Your task to perform on an android device: uninstall "DuckDuckGo Privacy Browser" Image 0: 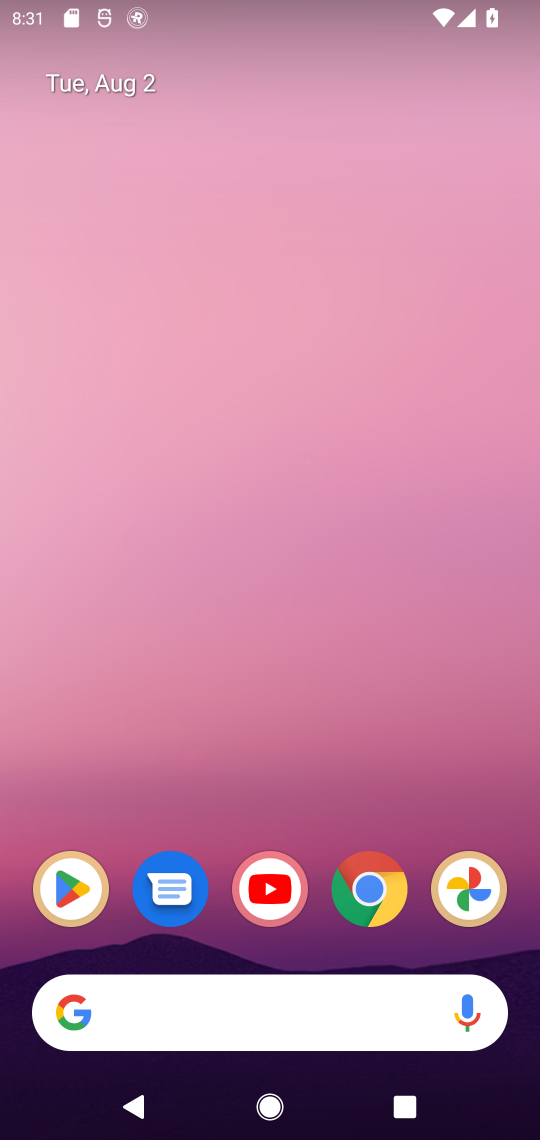
Step 0: press home button
Your task to perform on an android device: uninstall "DuckDuckGo Privacy Browser" Image 1: 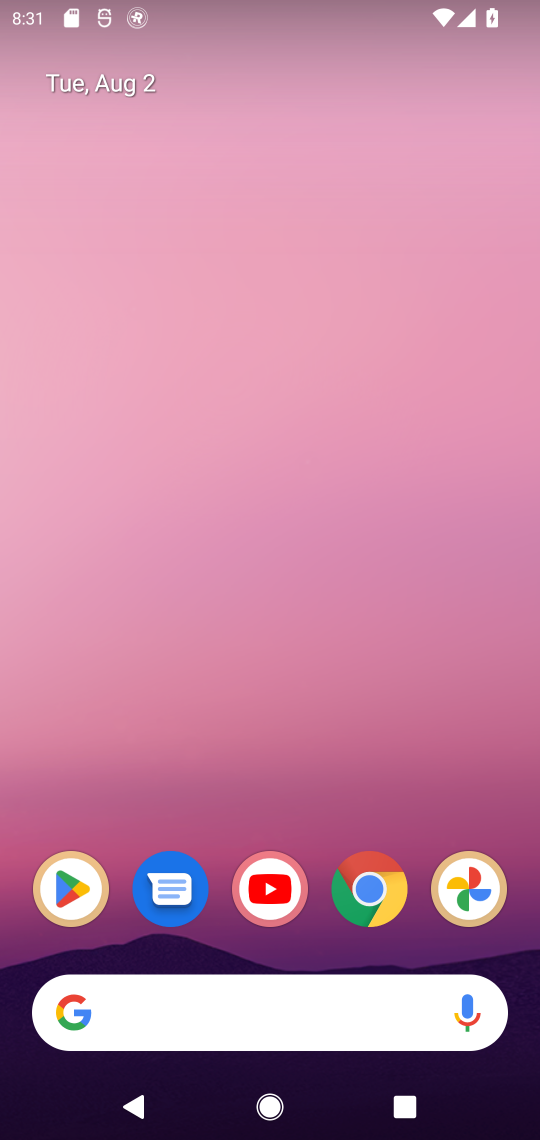
Step 1: click (64, 891)
Your task to perform on an android device: uninstall "DuckDuckGo Privacy Browser" Image 2: 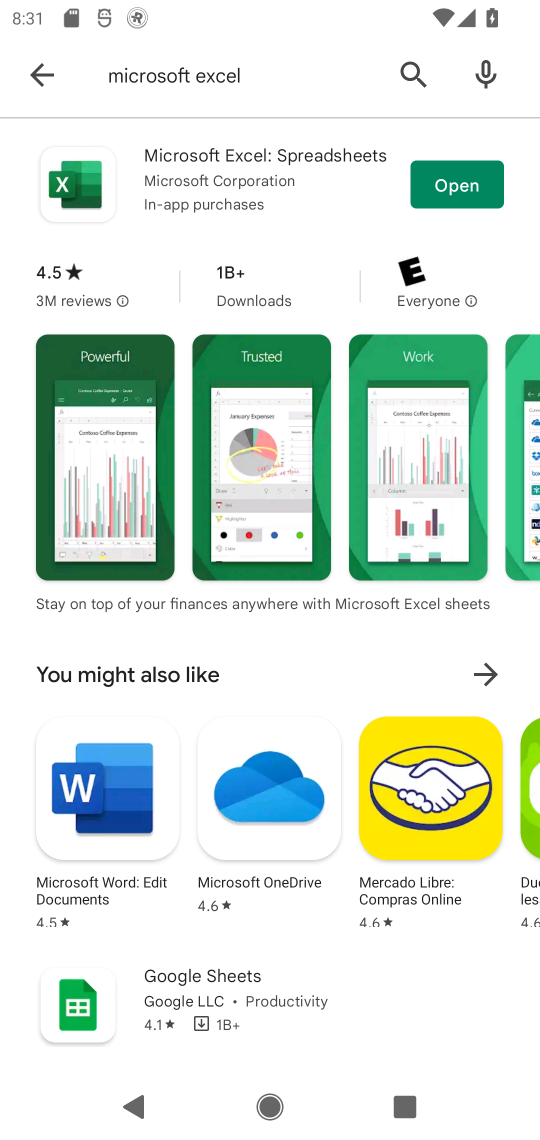
Step 2: click (405, 79)
Your task to perform on an android device: uninstall "DuckDuckGo Privacy Browser" Image 3: 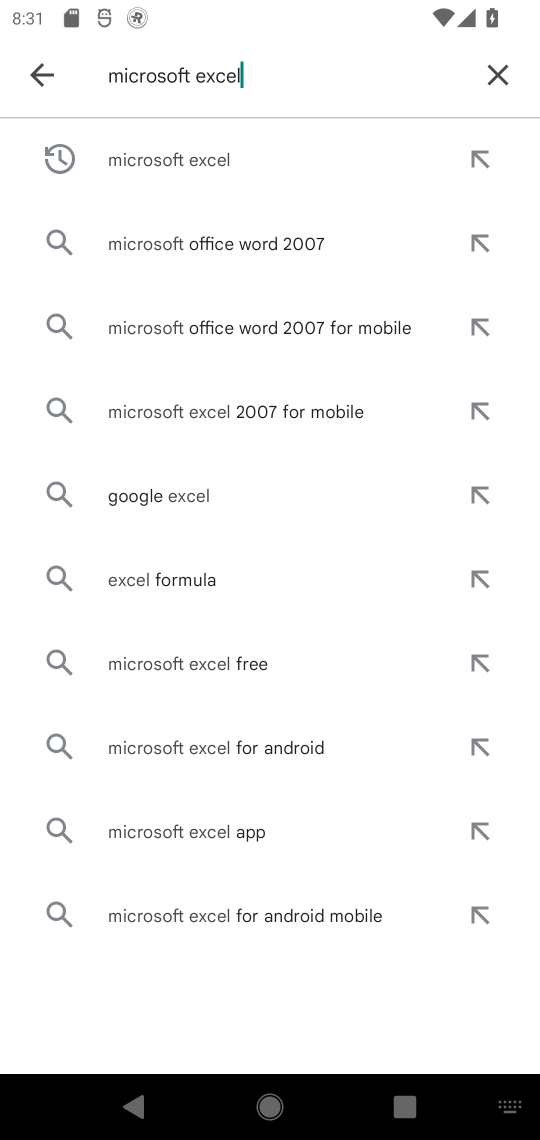
Step 3: click (505, 72)
Your task to perform on an android device: uninstall "DuckDuckGo Privacy Browser" Image 4: 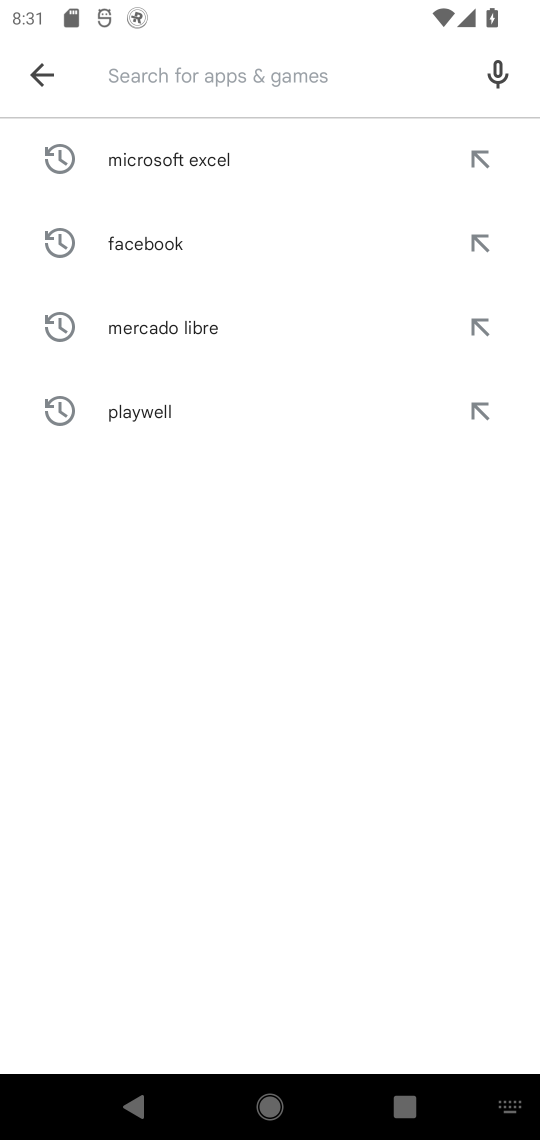
Step 4: type "DuckDuckGo Privacy Browser"
Your task to perform on an android device: uninstall "DuckDuckGo Privacy Browser" Image 5: 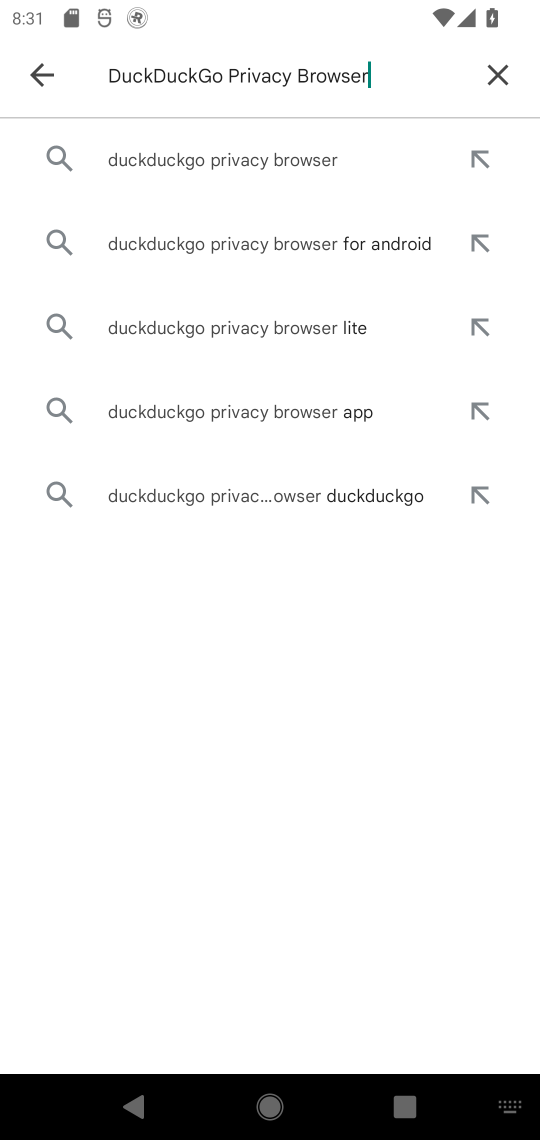
Step 5: click (208, 161)
Your task to perform on an android device: uninstall "DuckDuckGo Privacy Browser" Image 6: 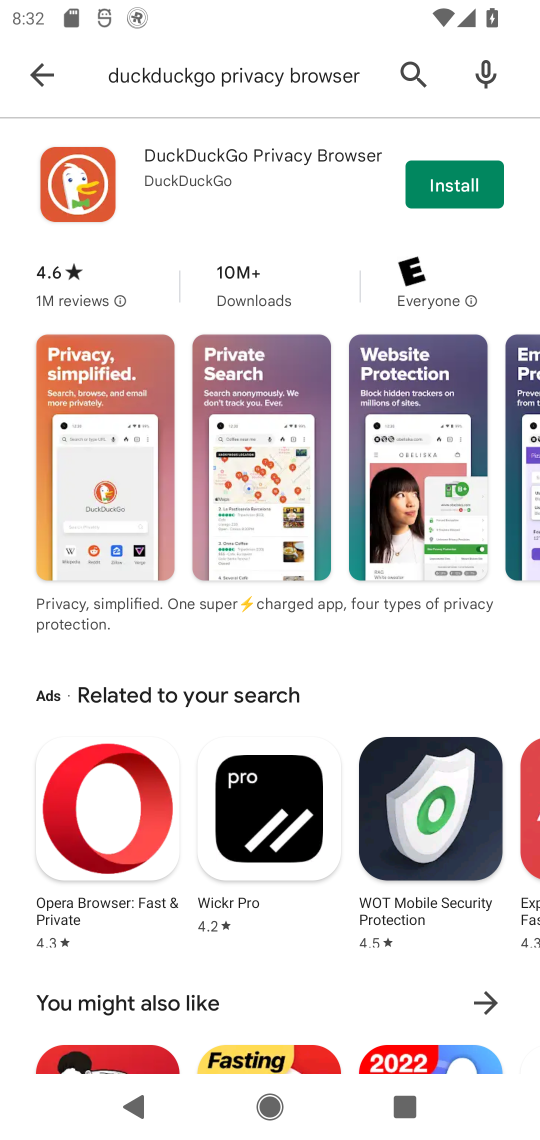
Step 6: task complete